Your task to perform on an android device: stop showing notifications on the lock screen Image 0: 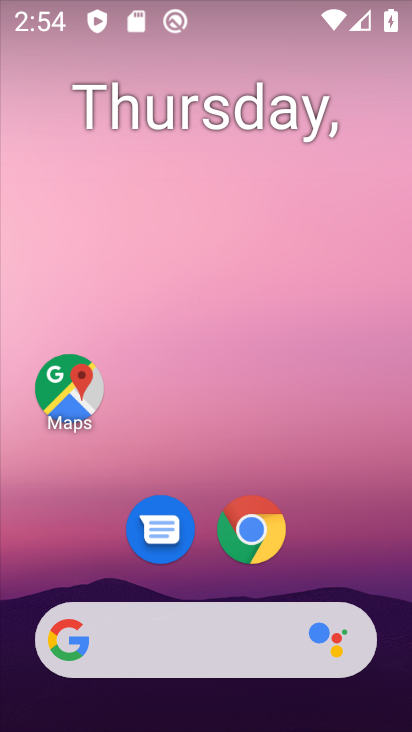
Step 0: drag from (338, 506) to (306, 13)
Your task to perform on an android device: stop showing notifications on the lock screen Image 1: 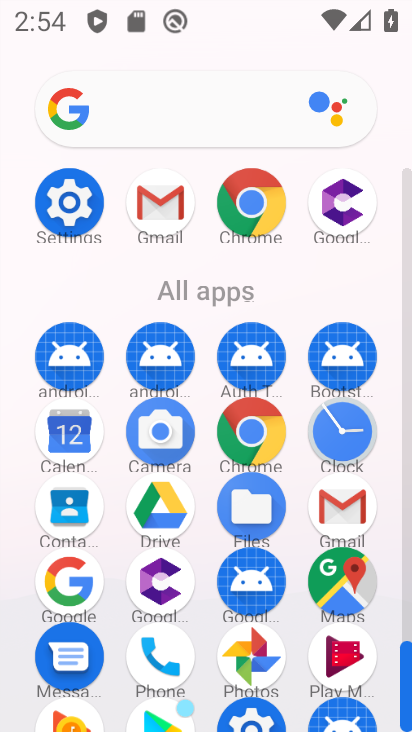
Step 1: click (65, 202)
Your task to perform on an android device: stop showing notifications on the lock screen Image 2: 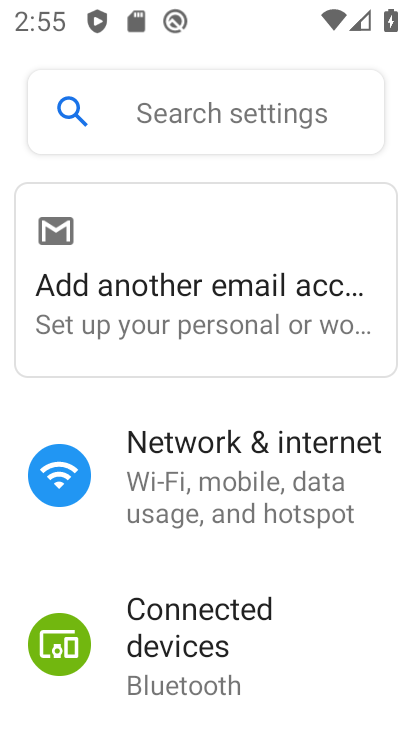
Step 2: drag from (203, 552) to (270, 276)
Your task to perform on an android device: stop showing notifications on the lock screen Image 3: 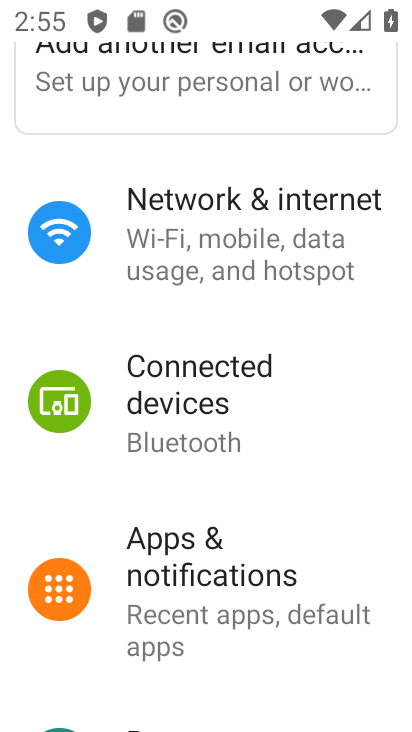
Step 3: click (199, 553)
Your task to perform on an android device: stop showing notifications on the lock screen Image 4: 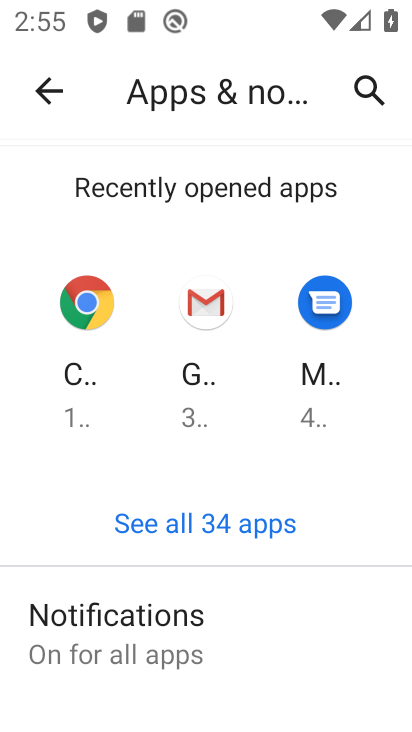
Step 4: click (142, 608)
Your task to perform on an android device: stop showing notifications on the lock screen Image 5: 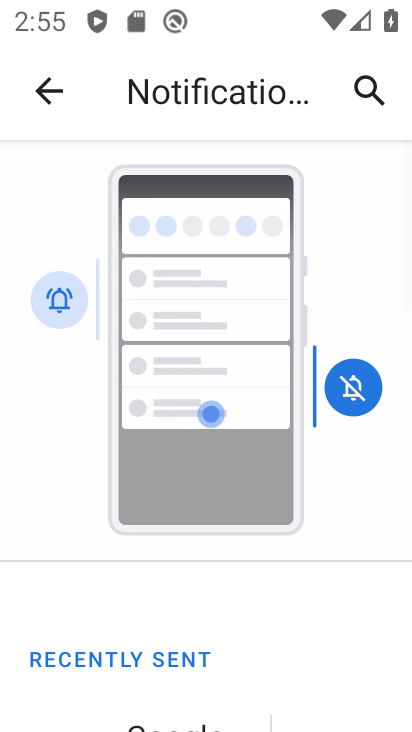
Step 5: drag from (202, 645) to (255, 287)
Your task to perform on an android device: stop showing notifications on the lock screen Image 6: 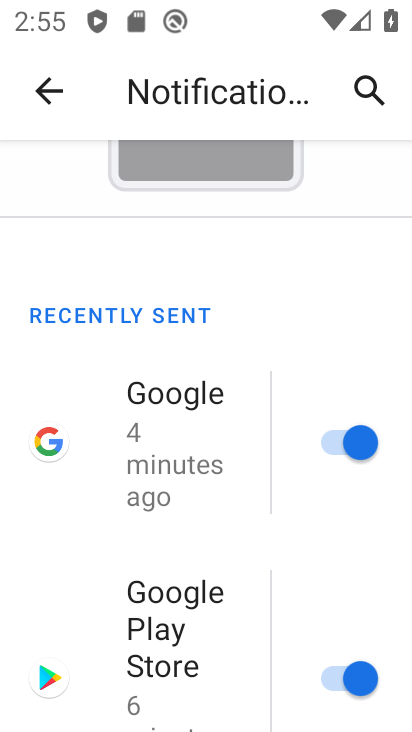
Step 6: drag from (204, 680) to (243, 337)
Your task to perform on an android device: stop showing notifications on the lock screen Image 7: 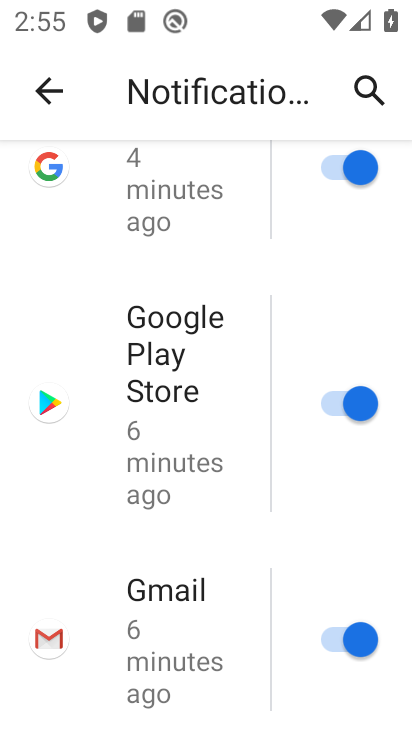
Step 7: drag from (210, 641) to (264, 271)
Your task to perform on an android device: stop showing notifications on the lock screen Image 8: 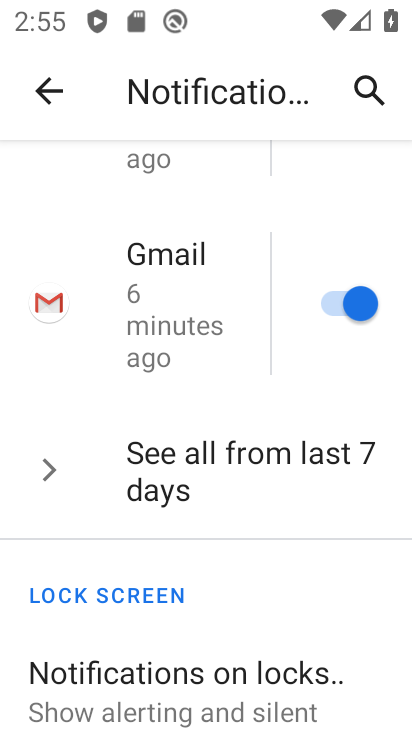
Step 8: drag from (120, 625) to (259, 310)
Your task to perform on an android device: stop showing notifications on the lock screen Image 9: 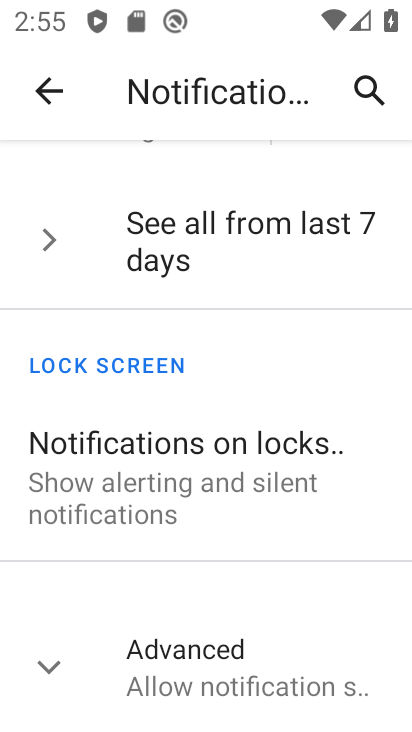
Step 9: click (177, 435)
Your task to perform on an android device: stop showing notifications on the lock screen Image 10: 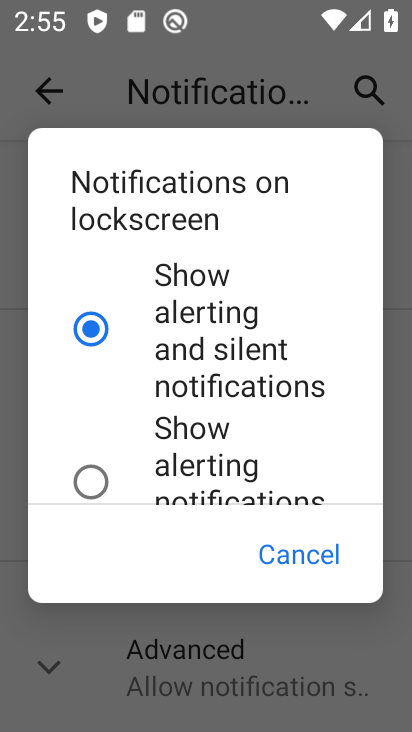
Step 10: drag from (136, 462) to (199, 280)
Your task to perform on an android device: stop showing notifications on the lock screen Image 11: 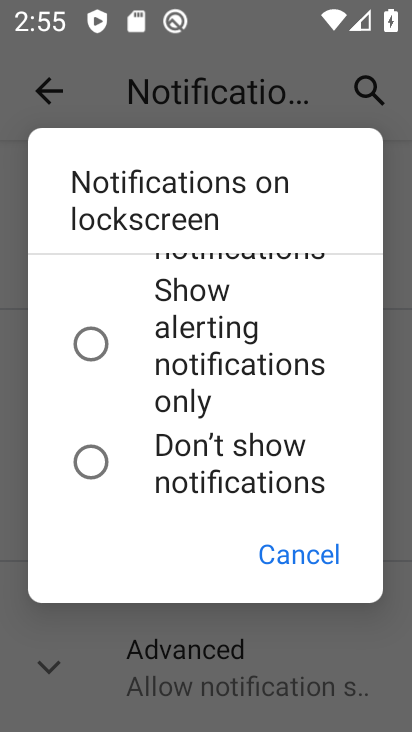
Step 11: click (99, 456)
Your task to perform on an android device: stop showing notifications on the lock screen Image 12: 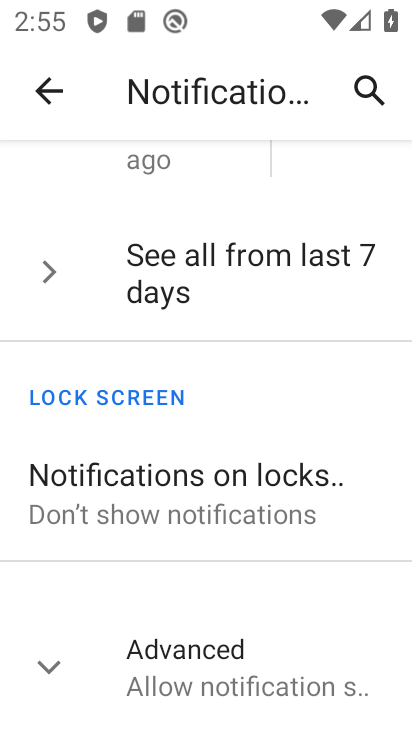
Step 12: task complete